Your task to perform on an android device: Open Google Chrome and open the bookmarks view Image 0: 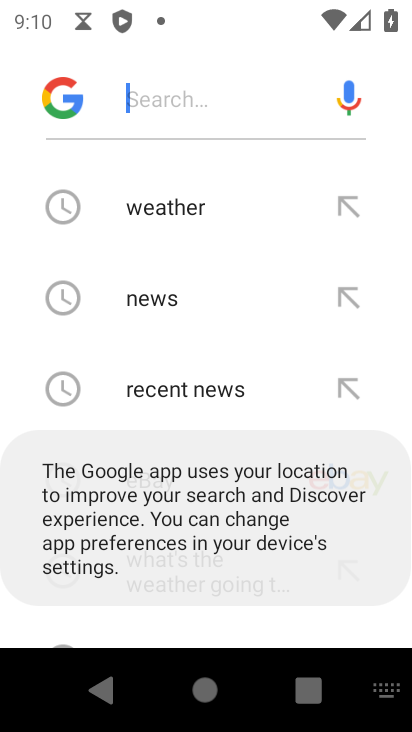
Step 0: press home button
Your task to perform on an android device: Open Google Chrome and open the bookmarks view Image 1: 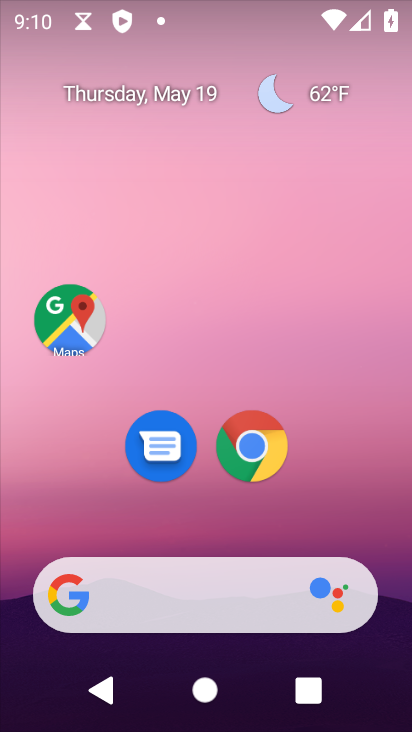
Step 1: click (263, 420)
Your task to perform on an android device: Open Google Chrome and open the bookmarks view Image 2: 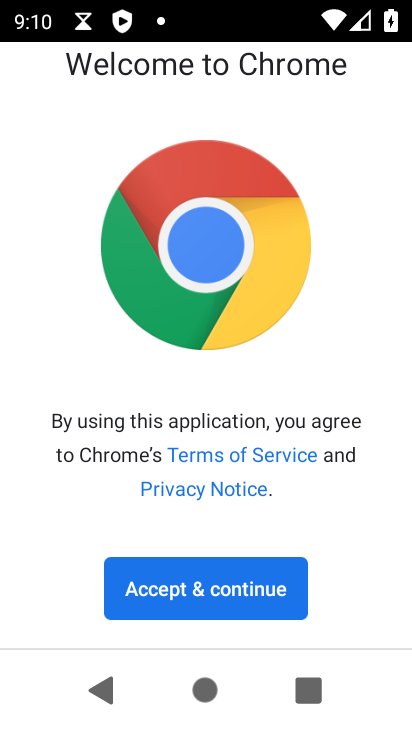
Step 2: click (271, 603)
Your task to perform on an android device: Open Google Chrome and open the bookmarks view Image 3: 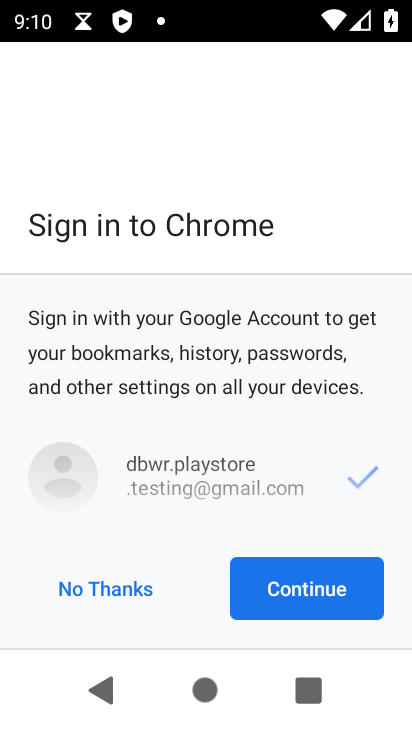
Step 3: click (286, 590)
Your task to perform on an android device: Open Google Chrome and open the bookmarks view Image 4: 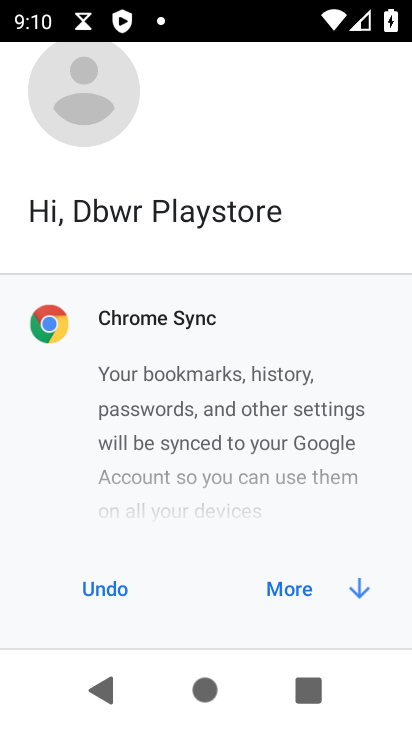
Step 4: click (317, 597)
Your task to perform on an android device: Open Google Chrome and open the bookmarks view Image 5: 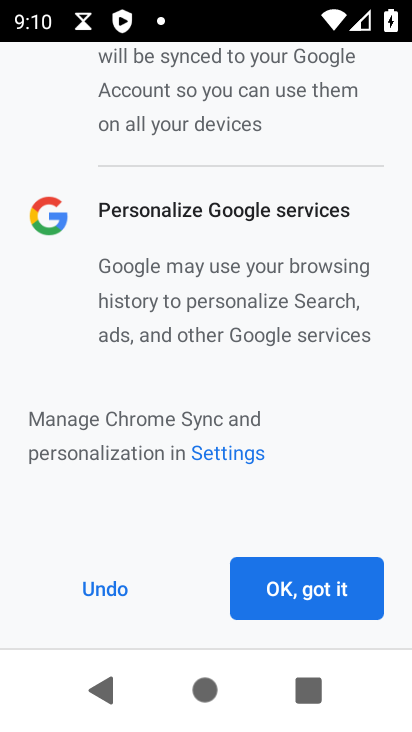
Step 5: click (317, 592)
Your task to perform on an android device: Open Google Chrome and open the bookmarks view Image 6: 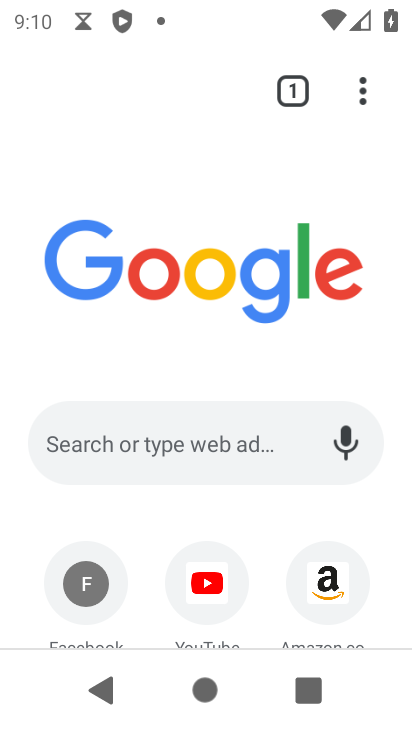
Step 6: click (360, 104)
Your task to perform on an android device: Open Google Chrome and open the bookmarks view Image 7: 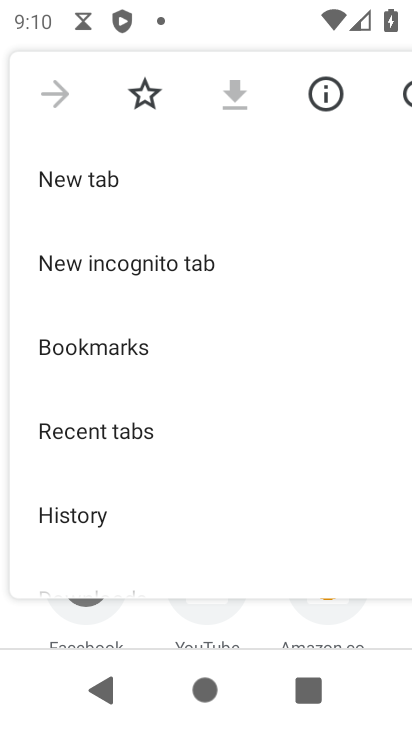
Step 7: click (91, 331)
Your task to perform on an android device: Open Google Chrome and open the bookmarks view Image 8: 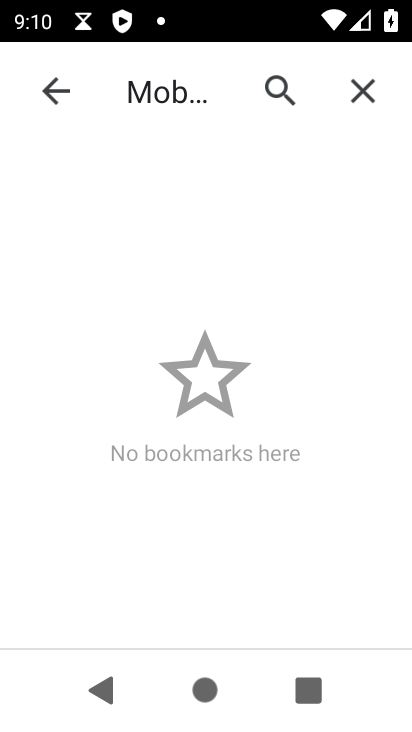
Step 8: task complete